Your task to perform on an android device: see tabs open on other devices in the chrome app Image 0: 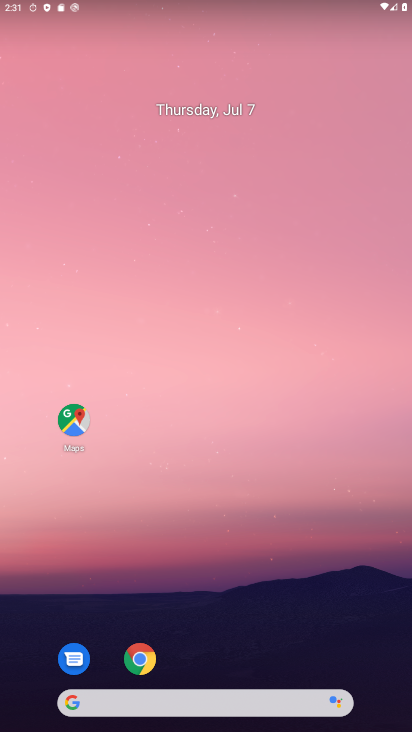
Step 0: click (134, 666)
Your task to perform on an android device: see tabs open on other devices in the chrome app Image 1: 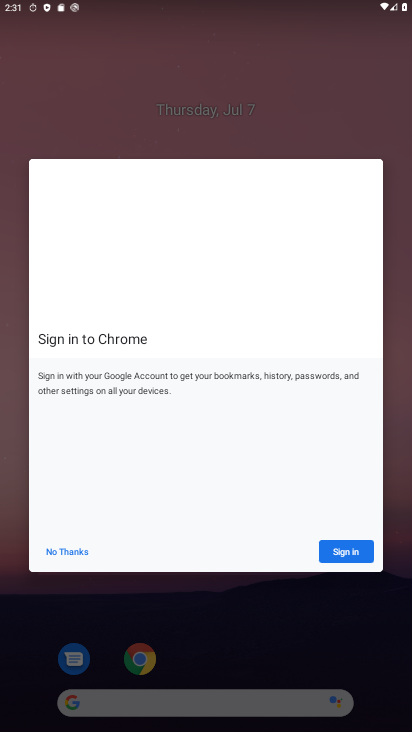
Step 1: task complete